Your task to perform on an android device: stop showing notifications on the lock screen Image 0: 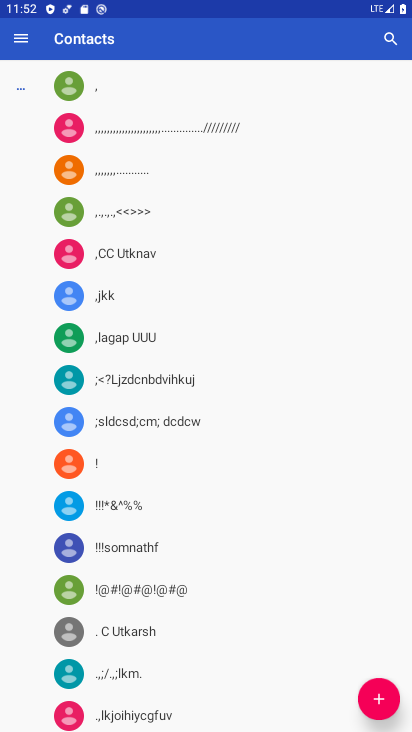
Step 0: press home button
Your task to perform on an android device: stop showing notifications on the lock screen Image 1: 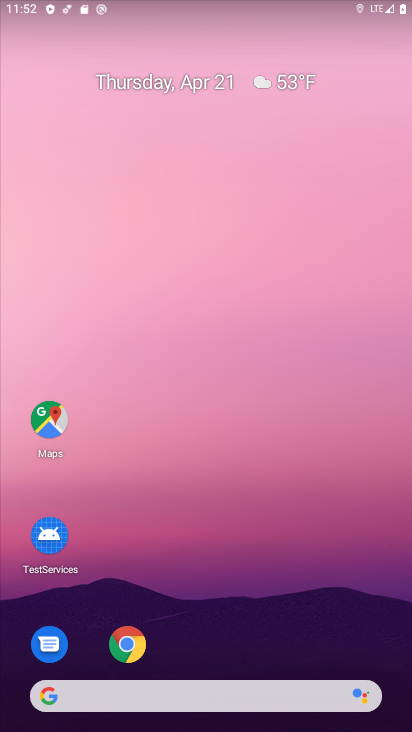
Step 1: drag from (271, 495) to (252, 219)
Your task to perform on an android device: stop showing notifications on the lock screen Image 2: 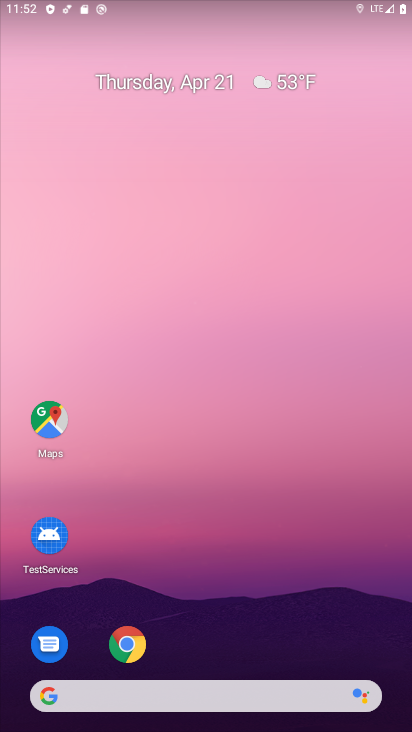
Step 2: drag from (251, 493) to (224, 33)
Your task to perform on an android device: stop showing notifications on the lock screen Image 3: 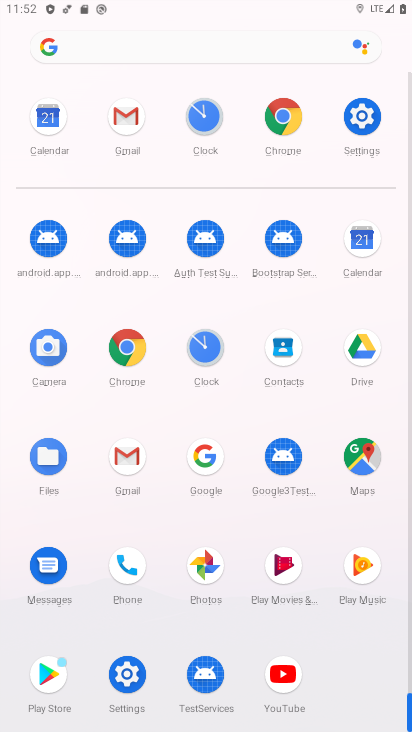
Step 3: click (359, 106)
Your task to perform on an android device: stop showing notifications on the lock screen Image 4: 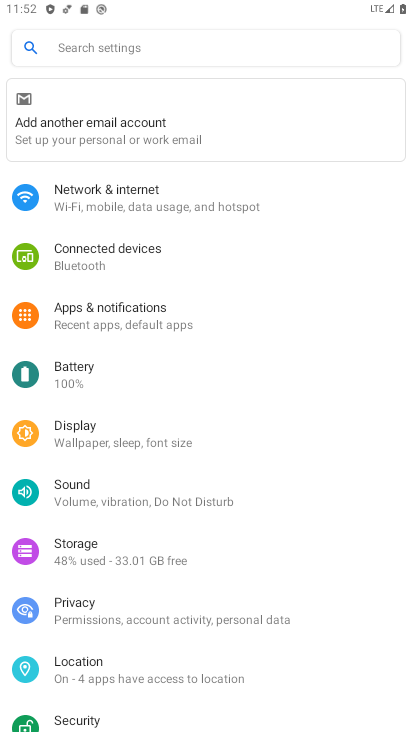
Step 4: click (119, 312)
Your task to perform on an android device: stop showing notifications on the lock screen Image 5: 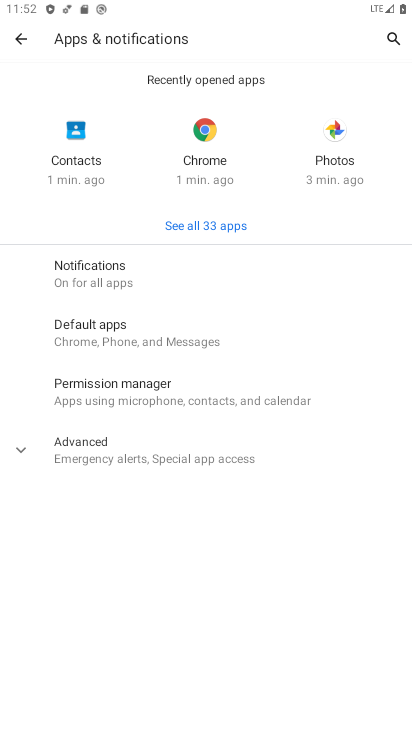
Step 5: click (115, 274)
Your task to perform on an android device: stop showing notifications on the lock screen Image 6: 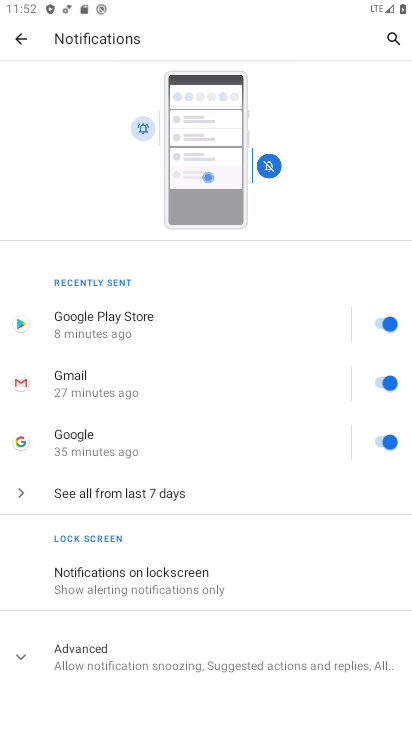
Step 6: drag from (190, 466) to (194, 205)
Your task to perform on an android device: stop showing notifications on the lock screen Image 7: 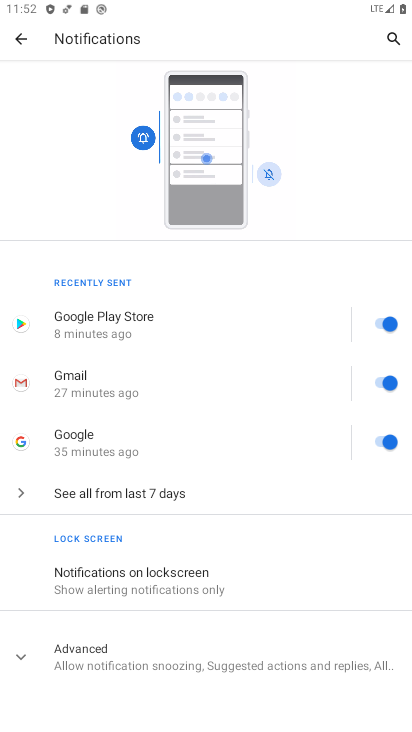
Step 7: click (167, 572)
Your task to perform on an android device: stop showing notifications on the lock screen Image 8: 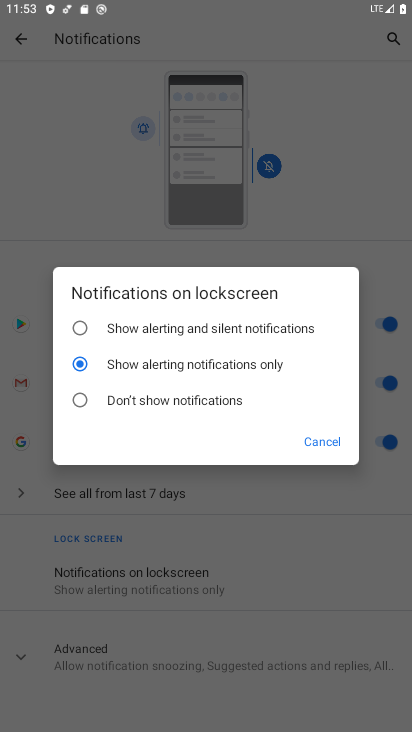
Step 8: click (160, 405)
Your task to perform on an android device: stop showing notifications on the lock screen Image 9: 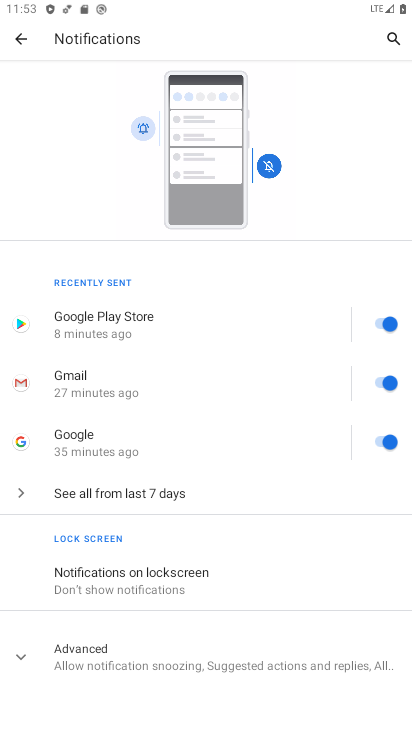
Step 9: task complete